Your task to perform on an android device: open app "Messages" Image 0: 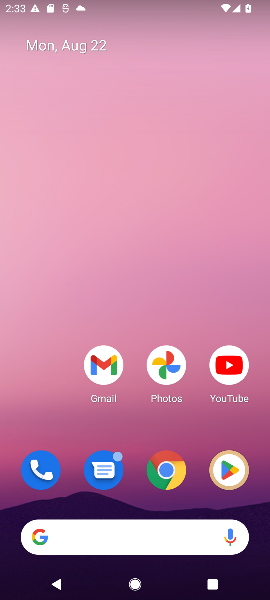
Step 0: drag from (110, 488) to (141, 146)
Your task to perform on an android device: open app "Messages" Image 1: 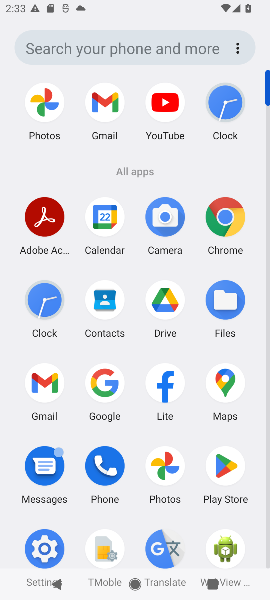
Step 1: click (217, 472)
Your task to perform on an android device: open app "Messages" Image 2: 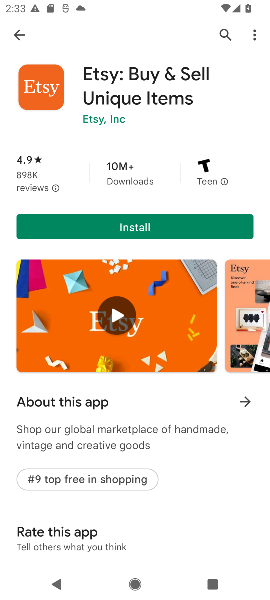
Step 2: click (7, 29)
Your task to perform on an android device: open app "Messages" Image 3: 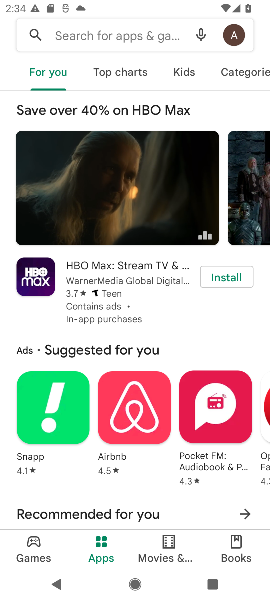
Step 3: click (88, 28)
Your task to perform on an android device: open app "Messages" Image 4: 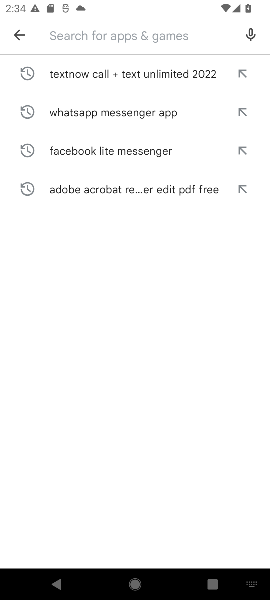
Step 4: type "Messages "
Your task to perform on an android device: open app "Messages" Image 5: 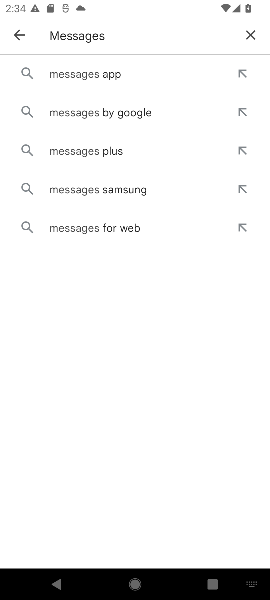
Step 5: click (125, 72)
Your task to perform on an android device: open app "Messages" Image 6: 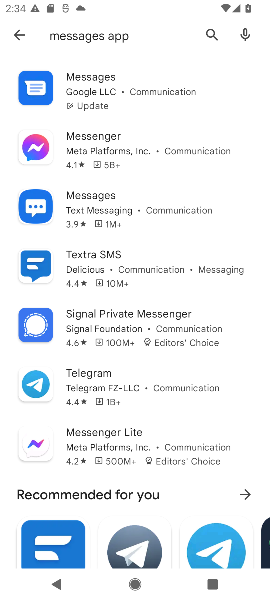
Step 6: click (74, 75)
Your task to perform on an android device: open app "Messages" Image 7: 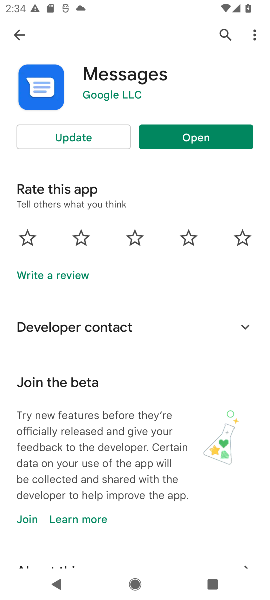
Step 7: click (159, 131)
Your task to perform on an android device: open app "Messages" Image 8: 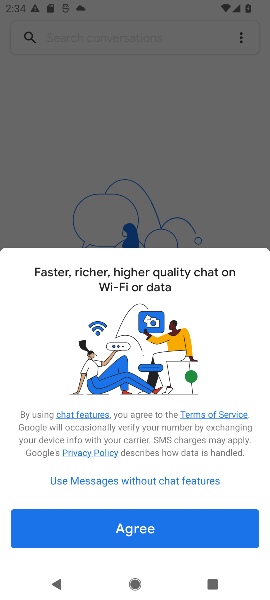
Step 8: task complete